Your task to perform on an android device: Open the web browser Image 0: 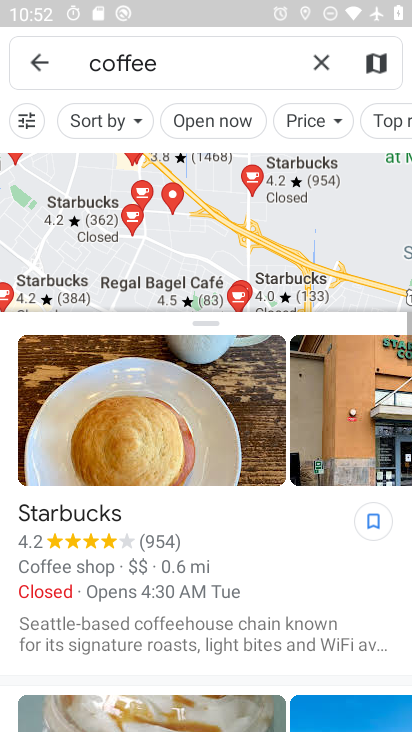
Step 0: press home button
Your task to perform on an android device: Open the web browser Image 1: 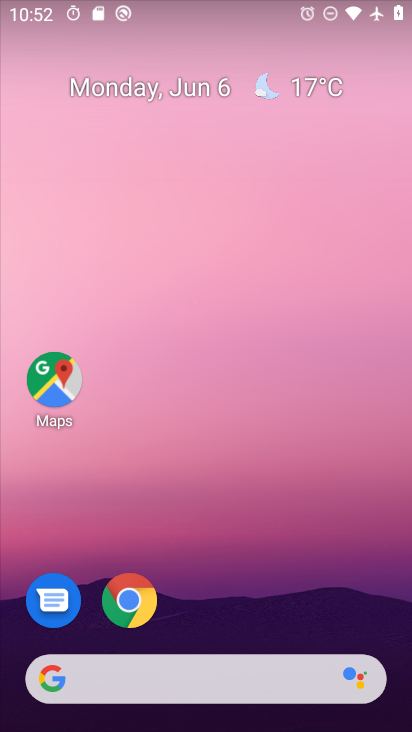
Step 1: click (128, 602)
Your task to perform on an android device: Open the web browser Image 2: 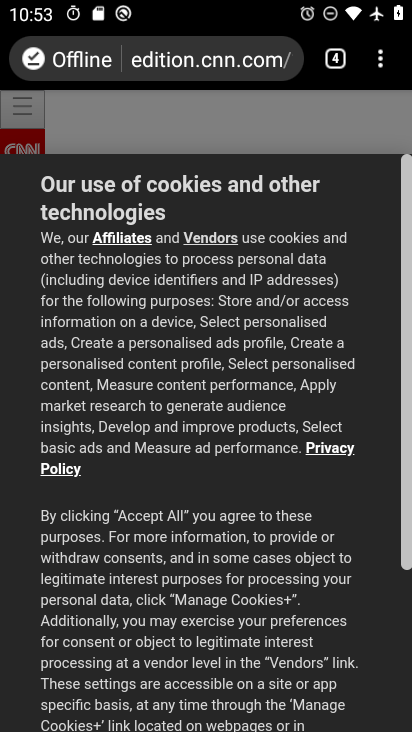
Step 2: task complete